Your task to perform on an android device: turn off airplane mode Image 0: 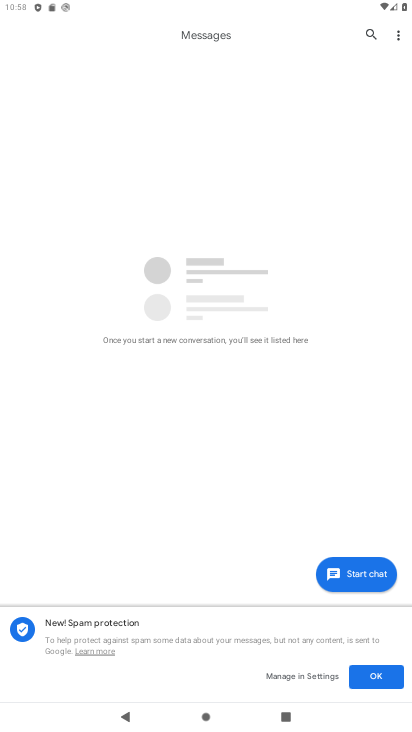
Step 0: press back button
Your task to perform on an android device: turn off airplane mode Image 1: 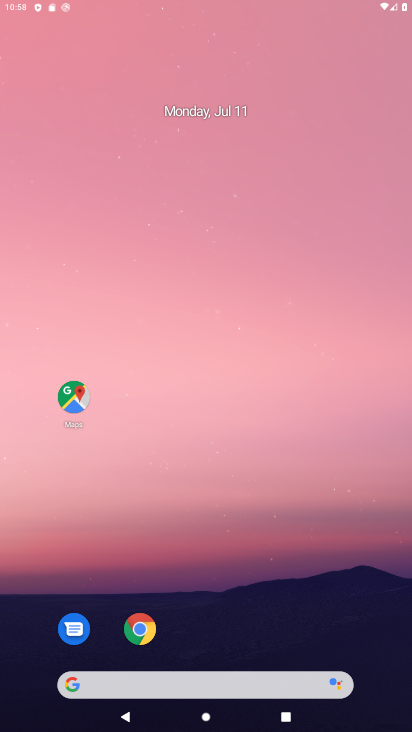
Step 1: press home button
Your task to perform on an android device: turn off airplane mode Image 2: 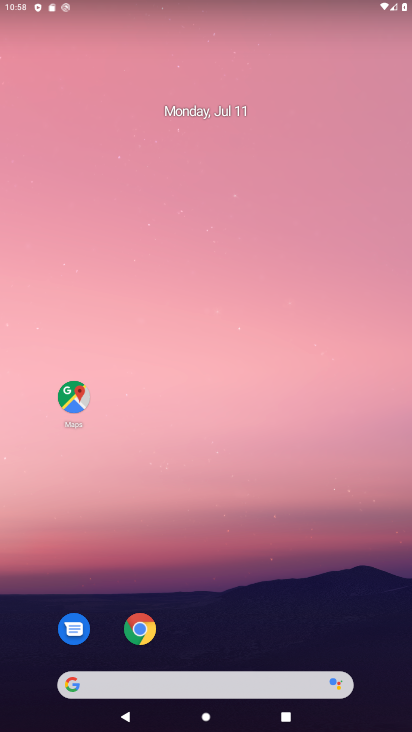
Step 2: click (171, 109)
Your task to perform on an android device: turn off airplane mode Image 3: 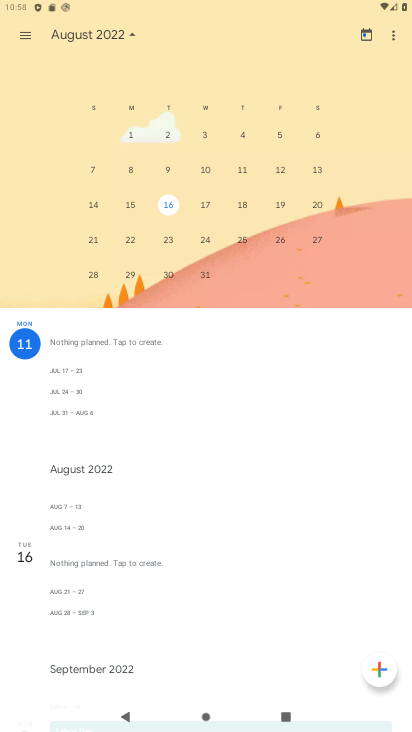
Step 3: press back button
Your task to perform on an android device: turn off airplane mode Image 4: 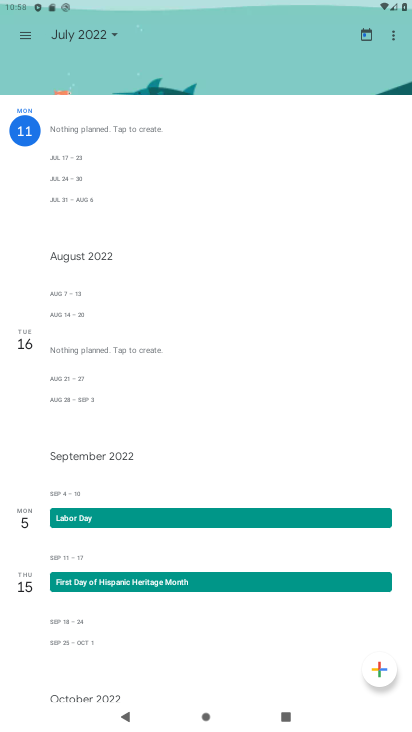
Step 4: press back button
Your task to perform on an android device: turn off airplane mode Image 5: 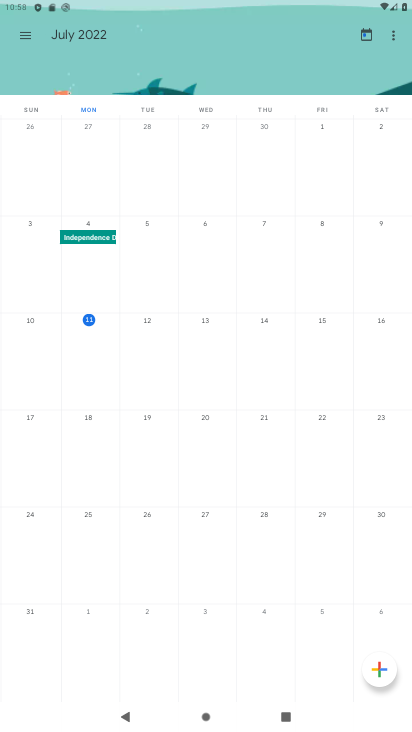
Step 5: press home button
Your task to perform on an android device: turn off airplane mode Image 6: 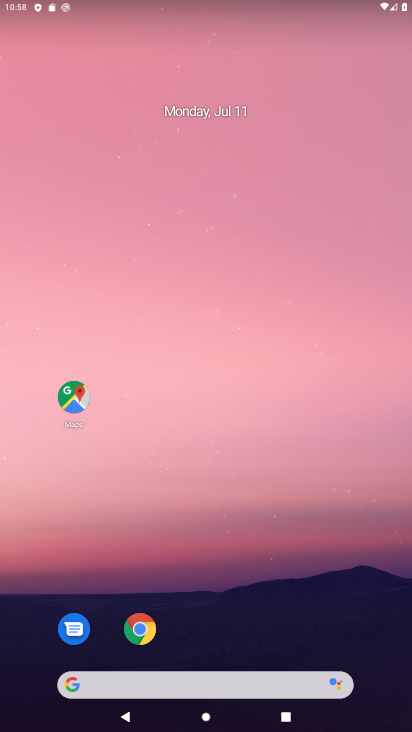
Step 6: drag from (270, 527) to (197, 109)
Your task to perform on an android device: turn off airplane mode Image 7: 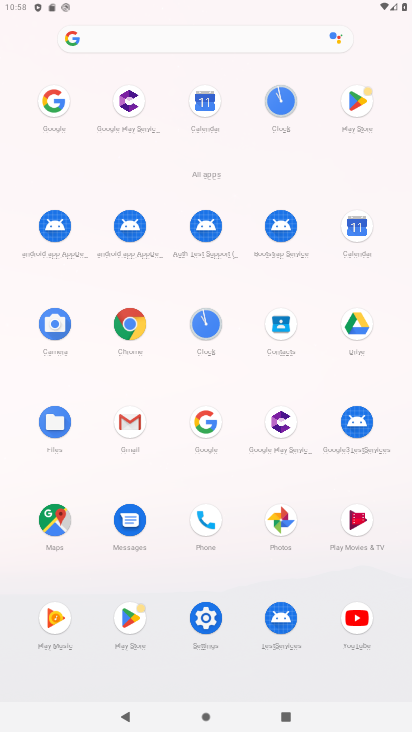
Step 7: click (213, 616)
Your task to perform on an android device: turn off airplane mode Image 8: 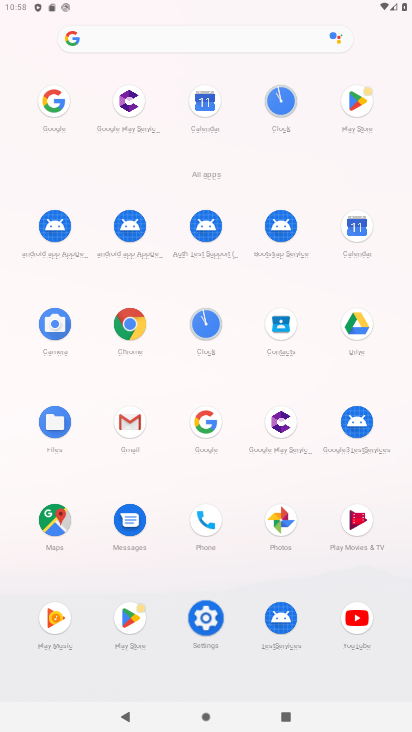
Step 8: click (211, 614)
Your task to perform on an android device: turn off airplane mode Image 9: 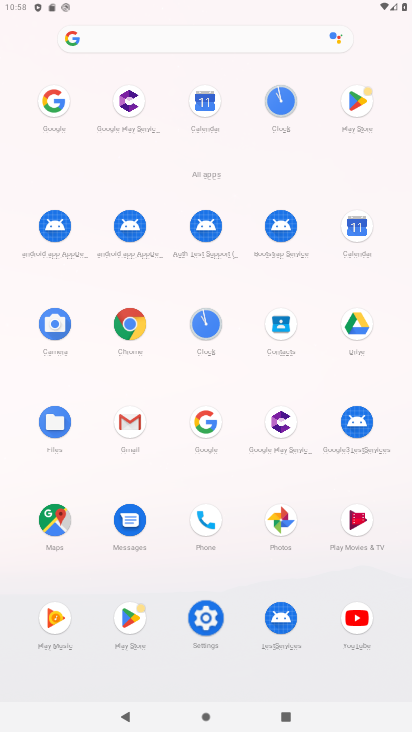
Step 9: click (210, 613)
Your task to perform on an android device: turn off airplane mode Image 10: 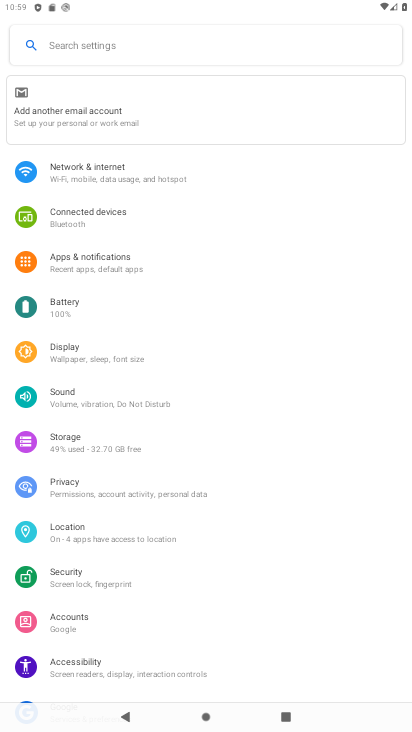
Step 10: click (84, 169)
Your task to perform on an android device: turn off airplane mode Image 11: 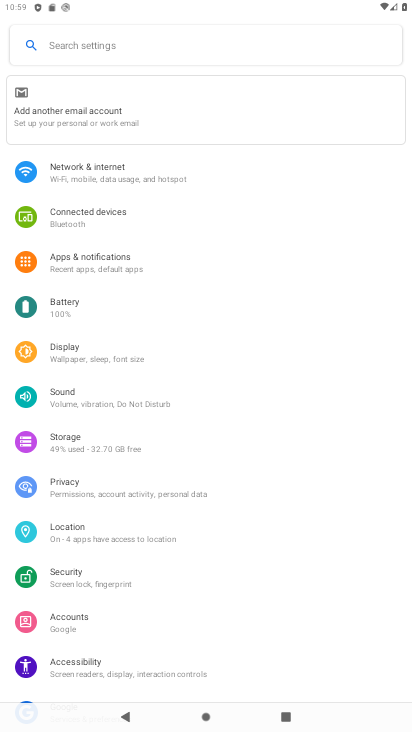
Step 11: click (104, 178)
Your task to perform on an android device: turn off airplane mode Image 12: 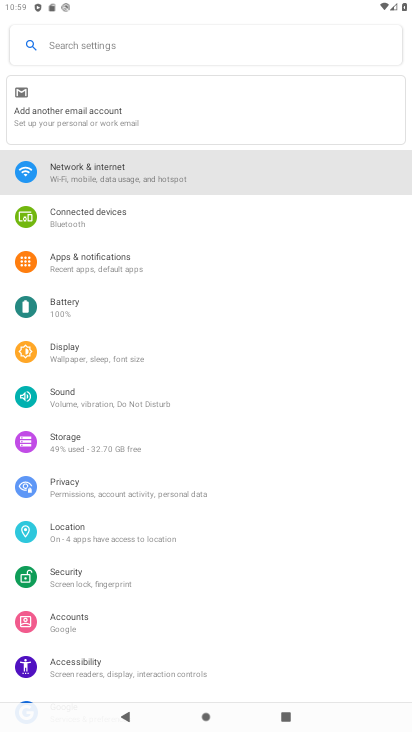
Step 12: click (121, 175)
Your task to perform on an android device: turn off airplane mode Image 13: 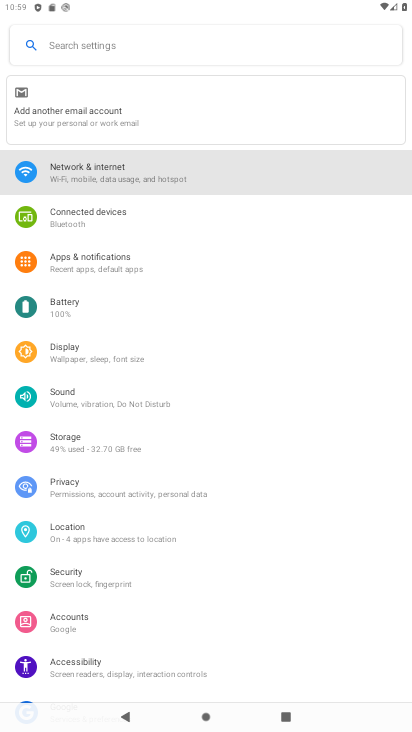
Step 13: click (121, 175)
Your task to perform on an android device: turn off airplane mode Image 14: 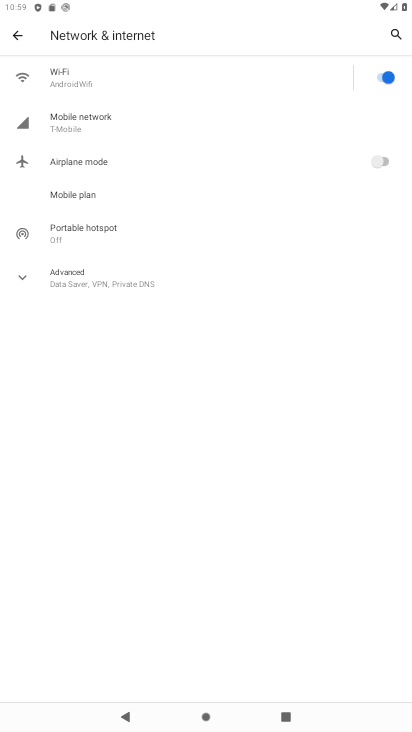
Step 14: click (381, 167)
Your task to perform on an android device: turn off airplane mode Image 15: 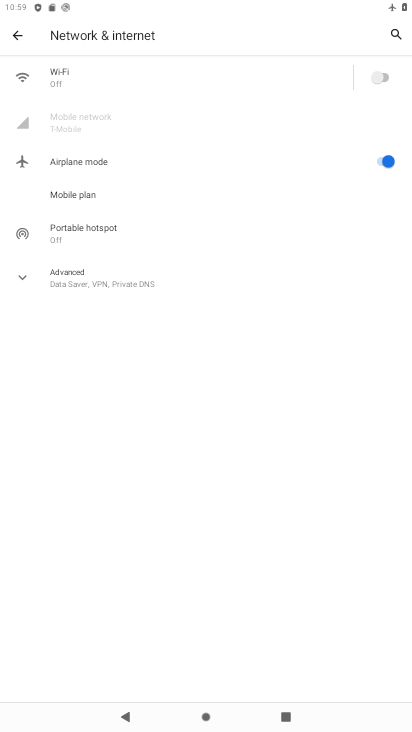
Step 15: task complete